Your task to perform on an android device: Open the stopwatch Image 0: 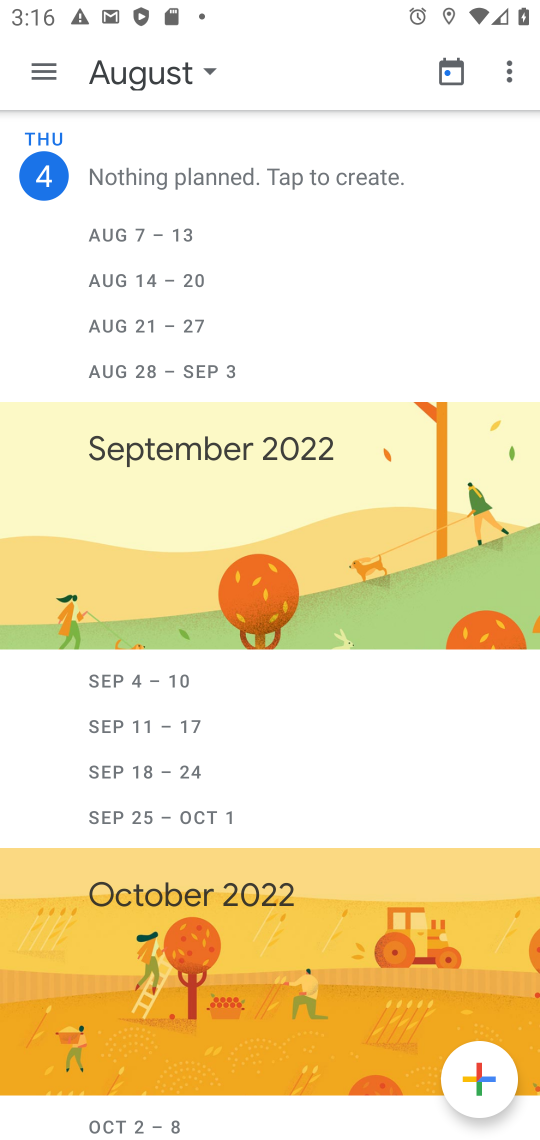
Step 0: press home button
Your task to perform on an android device: Open the stopwatch Image 1: 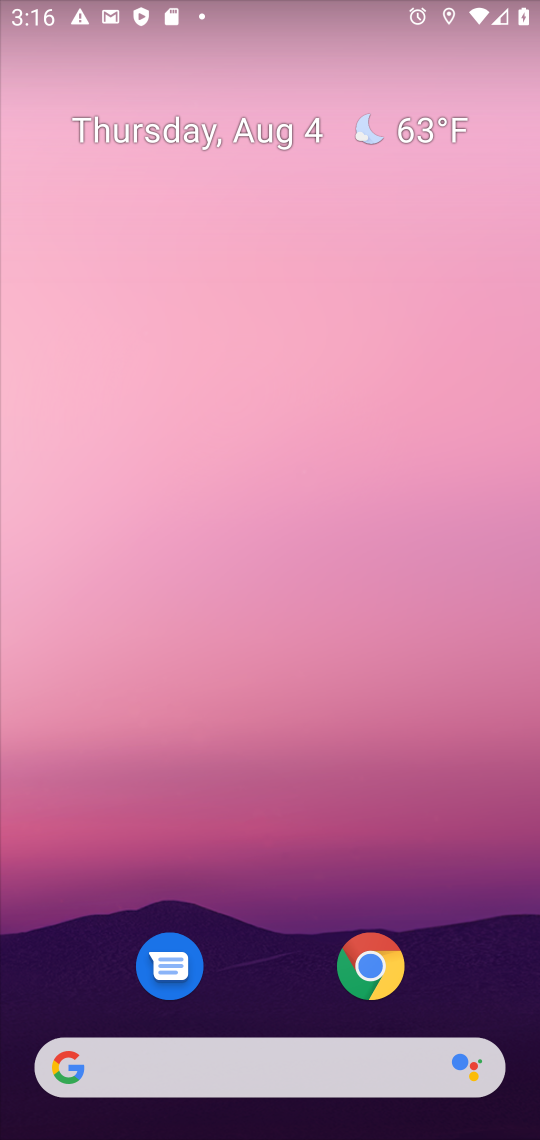
Step 1: drag from (261, 851) to (240, 0)
Your task to perform on an android device: Open the stopwatch Image 2: 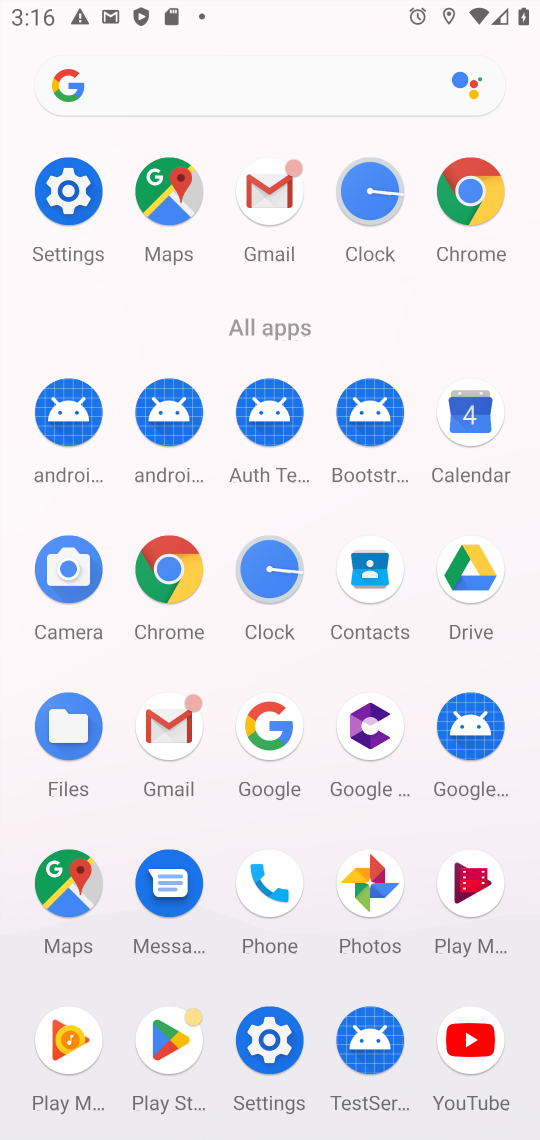
Step 2: click (363, 200)
Your task to perform on an android device: Open the stopwatch Image 3: 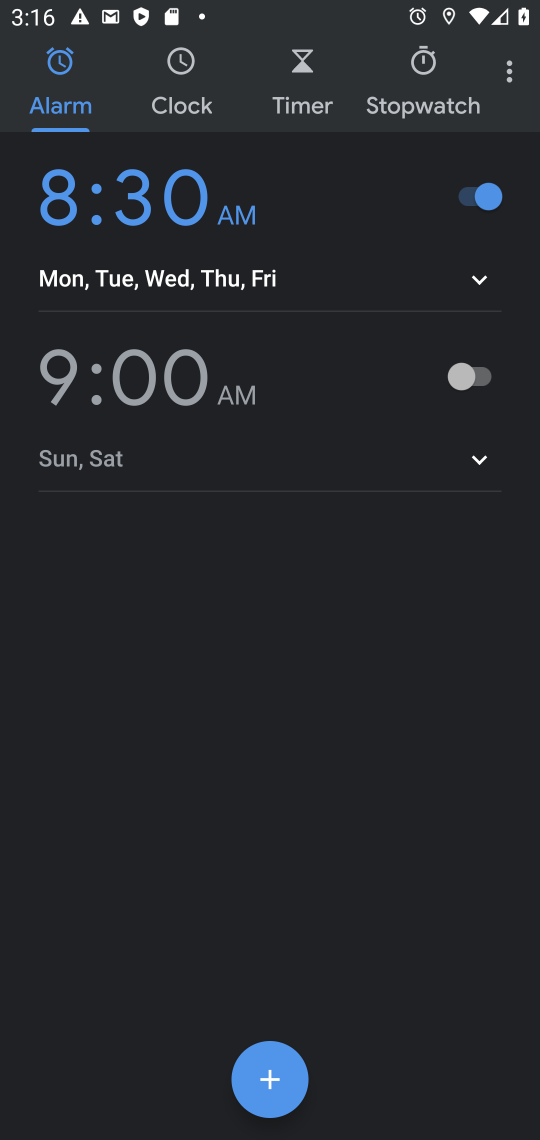
Step 3: click (423, 83)
Your task to perform on an android device: Open the stopwatch Image 4: 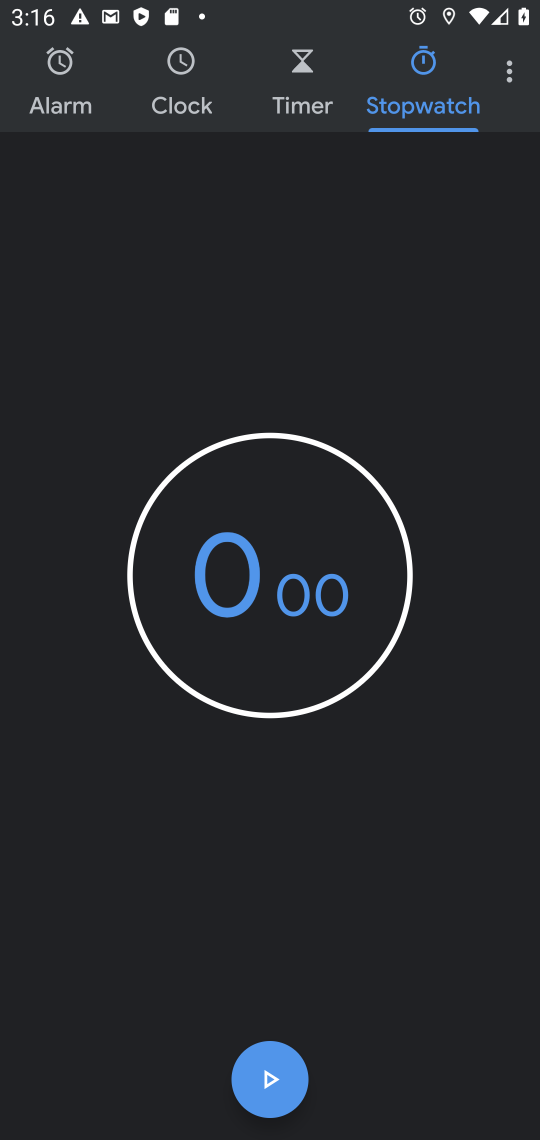
Step 4: task complete